Your task to perform on an android device: check the backup settings in the google photos Image 0: 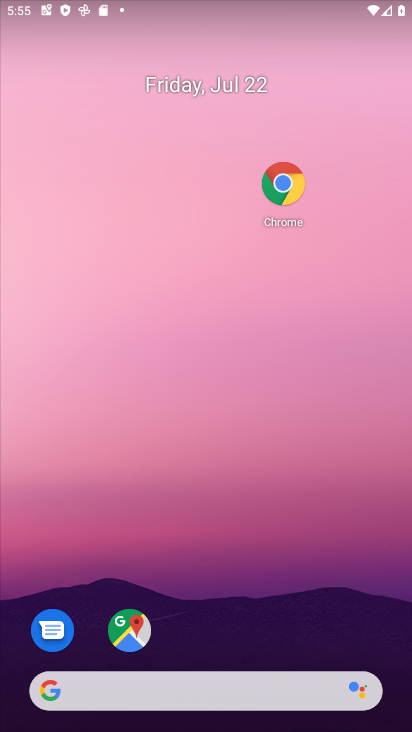
Step 0: drag from (178, 584) to (131, 258)
Your task to perform on an android device: check the backup settings in the google photos Image 1: 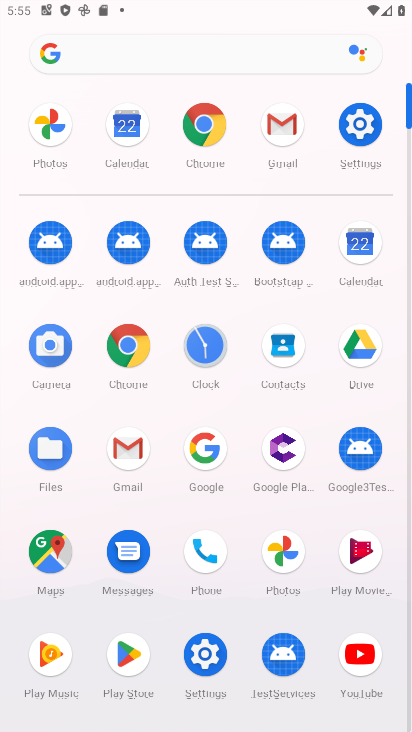
Step 1: click (297, 559)
Your task to perform on an android device: check the backup settings in the google photos Image 2: 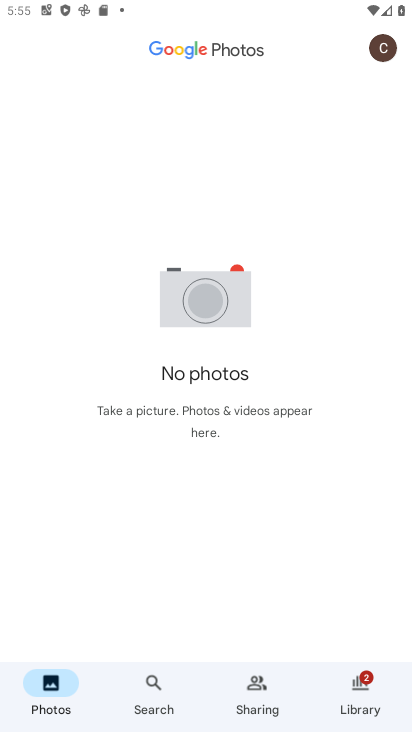
Step 2: click (383, 43)
Your task to perform on an android device: check the backup settings in the google photos Image 3: 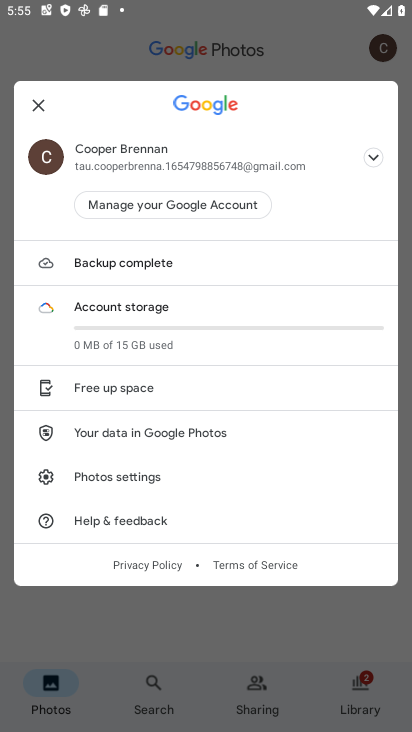
Step 3: click (110, 473)
Your task to perform on an android device: check the backup settings in the google photos Image 4: 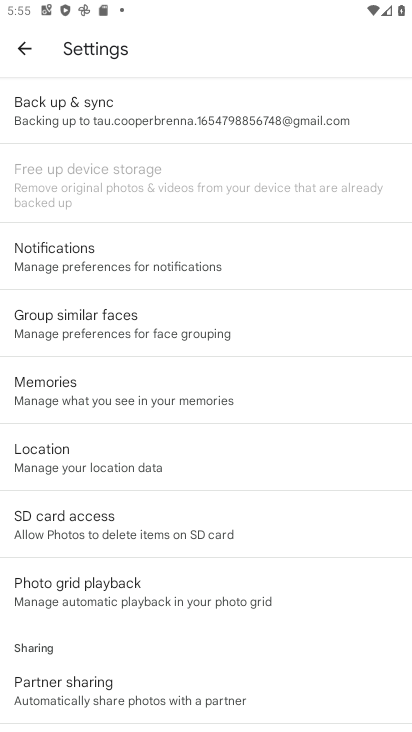
Step 4: task complete